Your task to perform on an android device: Open Google Image 0: 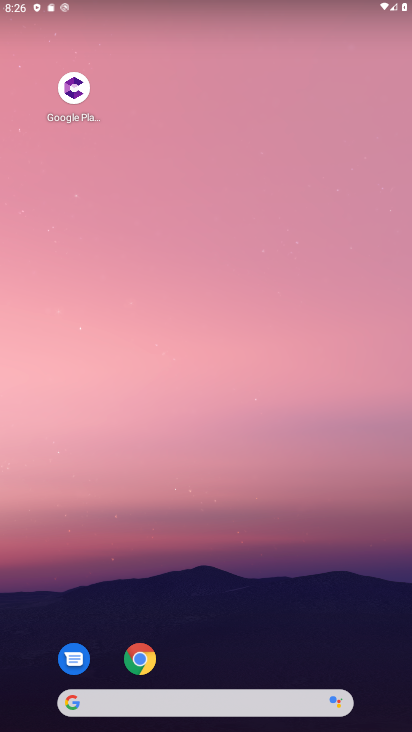
Step 0: drag from (316, 643) to (321, 49)
Your task to perform on an android device: Open Google Image 1: 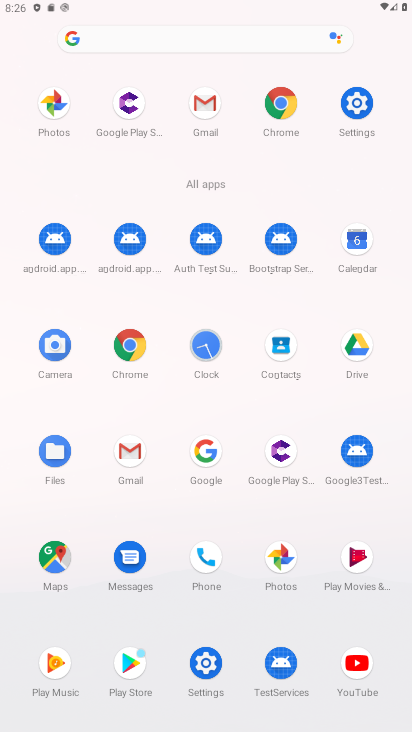
Step 1: click (202, 457)
Your task to perform on an android device: Open Google Image 2: 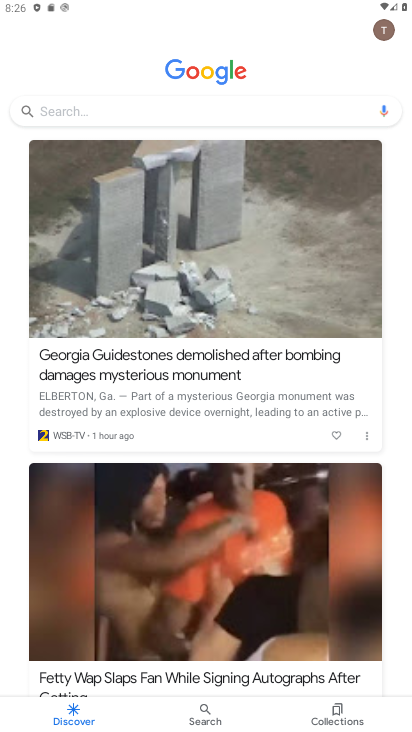
Step 2: task complete